Your task to perform on an android device: Open network settings Image 0: 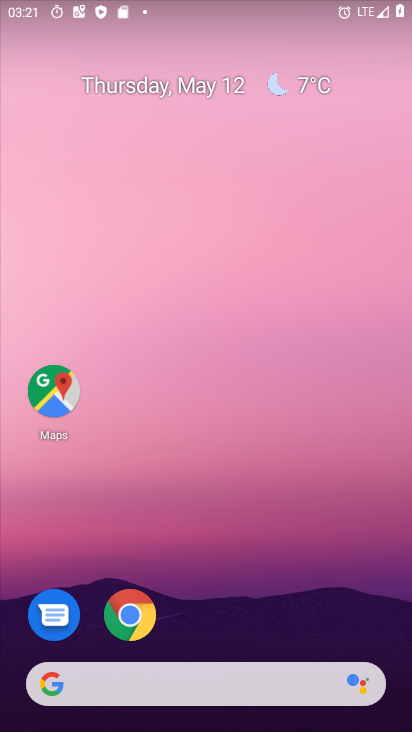
Step 0: drag from (253, 671) to (164, 114)
Your task to perform on an android device: Open network settings Image 1: 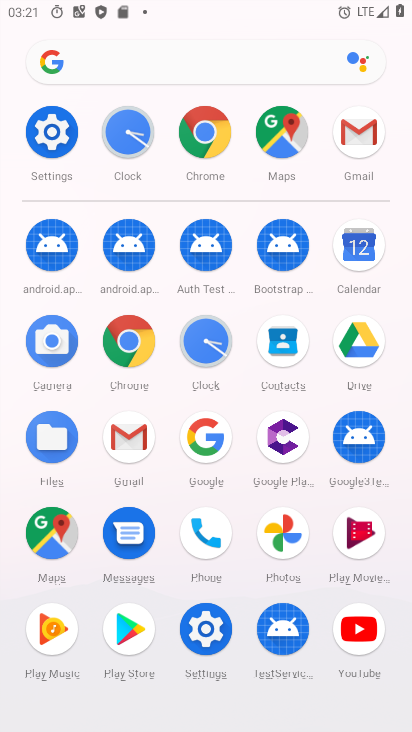
Step 1: click (25, 148)
Your task to perform on an android device: Open network settings Image 2: 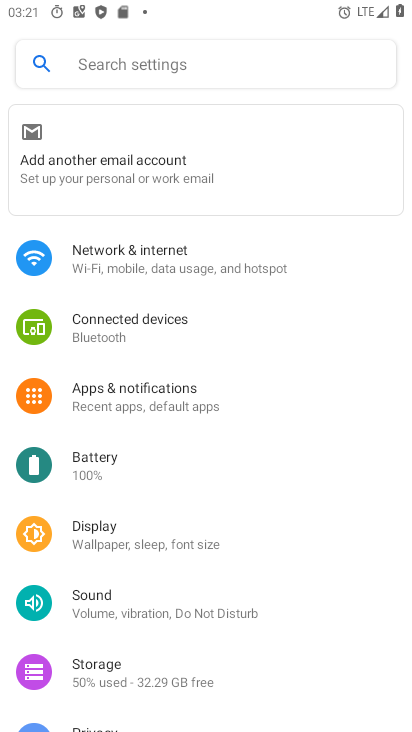
Step 2: click (158, 275)
Your task to perform on an android device: Open network settings Image 3: 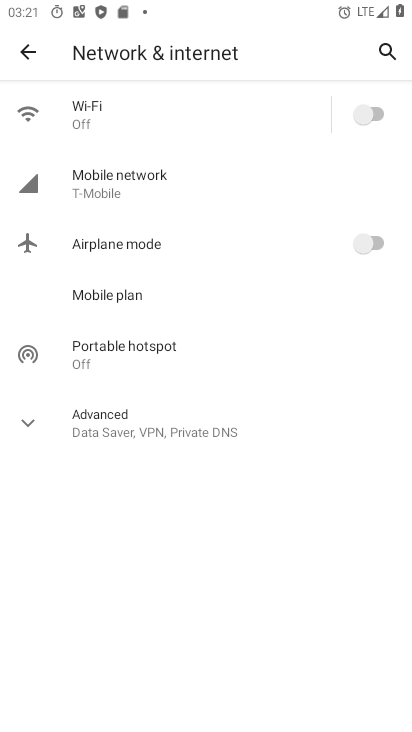
Step 3: task complete